Your task to perform on an android device: Show me recent news Image 0: 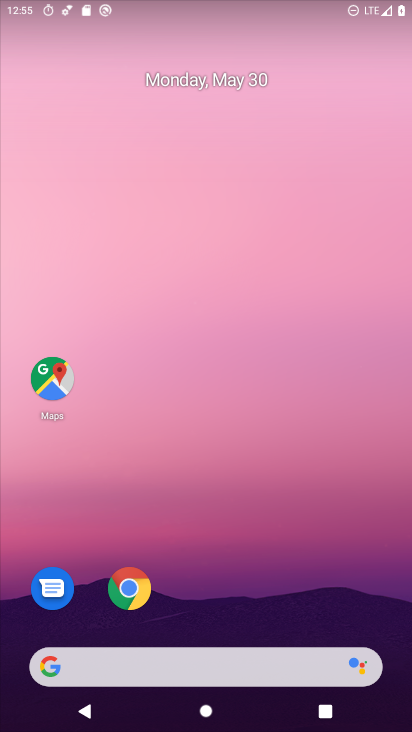
Step 0: drag from (235, 588) to (261, 126)
Your task to perform on an android device: Show me recent news Image 1: 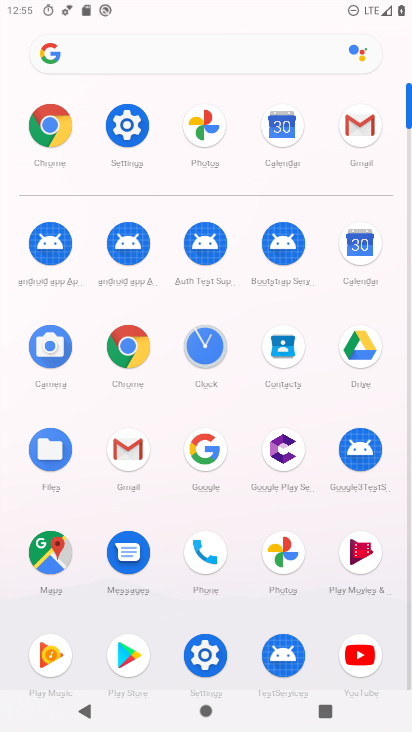
Step 1: click (205, 451)
Your task to perform on an android device: Show me recent news Image 2: 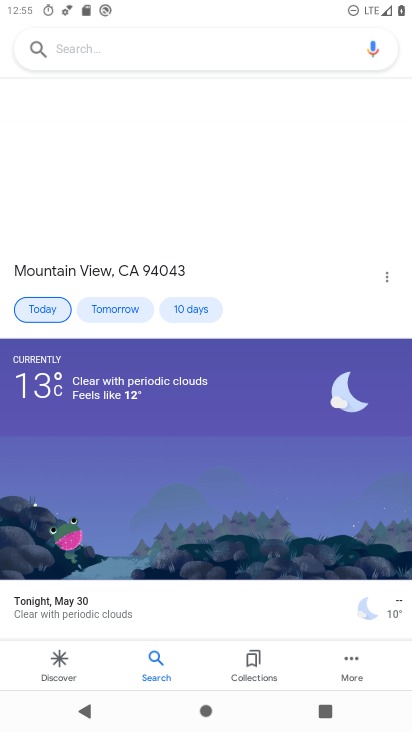
Step 2: click (67, 660)
Your task to perform on an android device: Show me recent news Image 3: 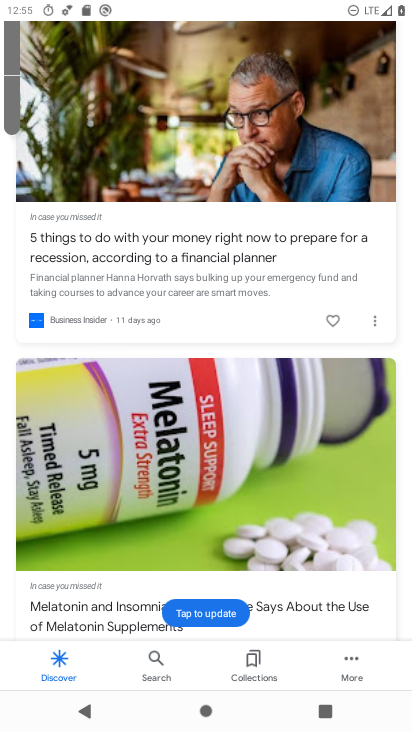
Step 3: task complete